Your task to perform on an android device: Go to network settings Image 0: 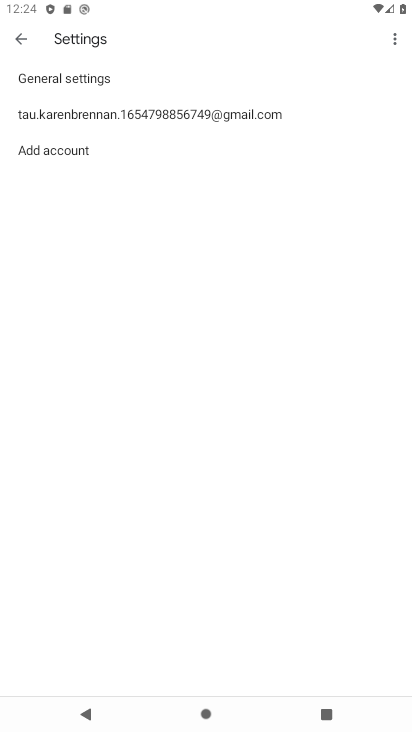
Step 0: press home button
Your task to perform on an android device: Go to network settings Image 1: 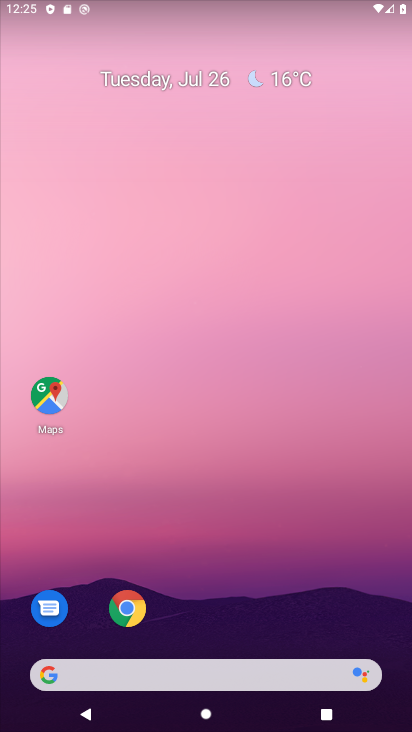
Step 1: drag from (266, 613) to (237, 138)
Your task to perform on an android device: Go to network settings Image 2: 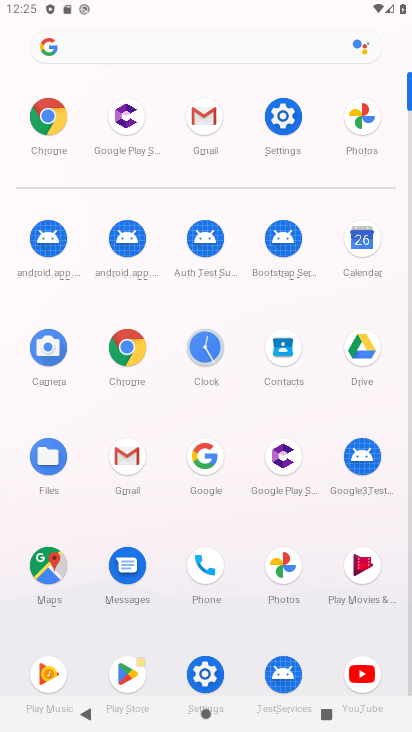
Step 2: click (278, 117)
Your task to perform on an android device: Go to network settings Image 3: 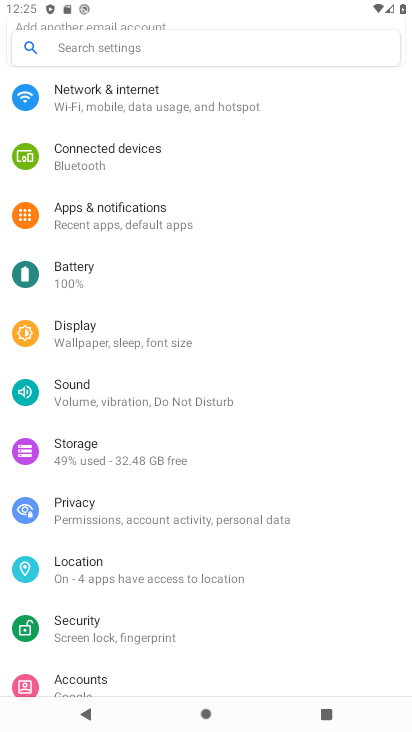
Step 3: click (278, 117)
Your task to perform on an android device: Go to network settings Image 4: 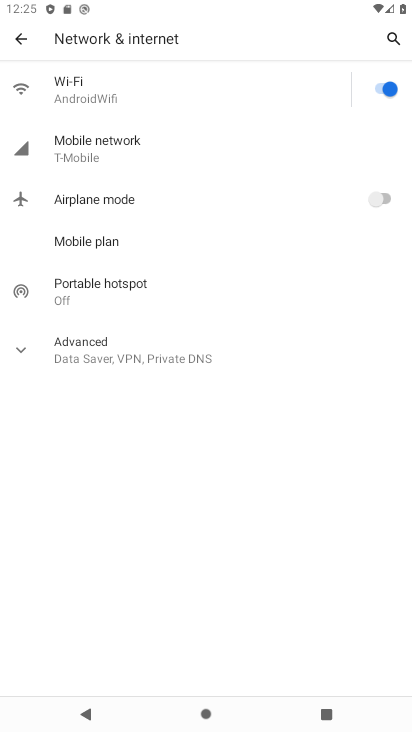
Step 4: task complete